Your task to perform on an android device: toggle translation in the chrome app Image 0: 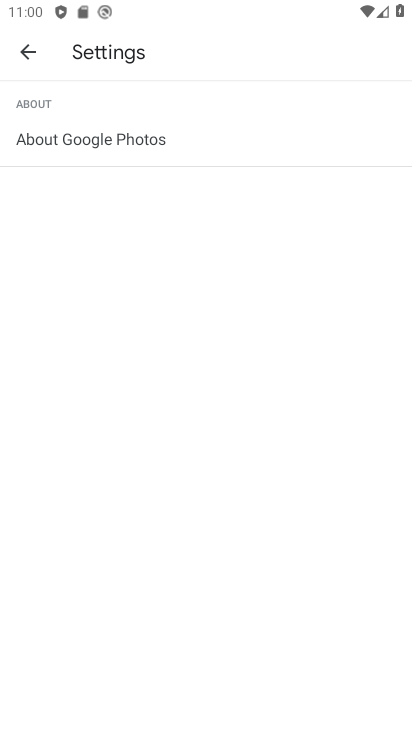
Step 0: press home button
Your task to perform on an android device: toggle translation in the chrome app Image 1: 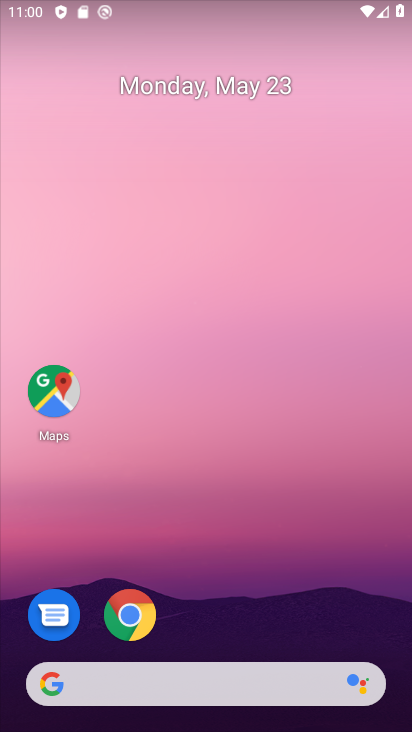
Step 1: click (128, 617)
Your task to perform on an android device: toggle translation in the chrome app Image 2: 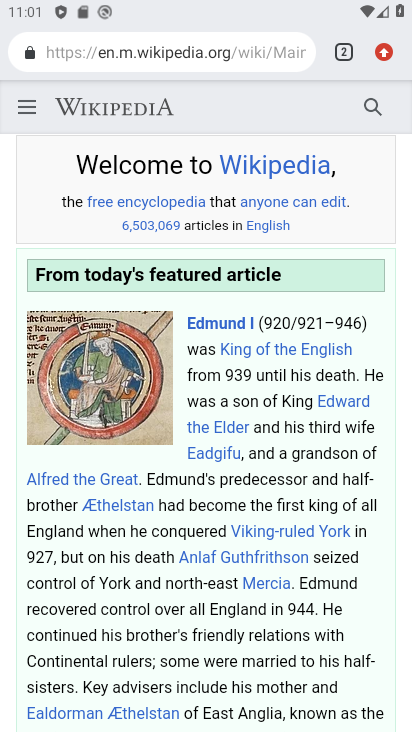
Step 2: click (385, 45)
Your task to perform on an android device: toggle translation in the chrome app Image 3: 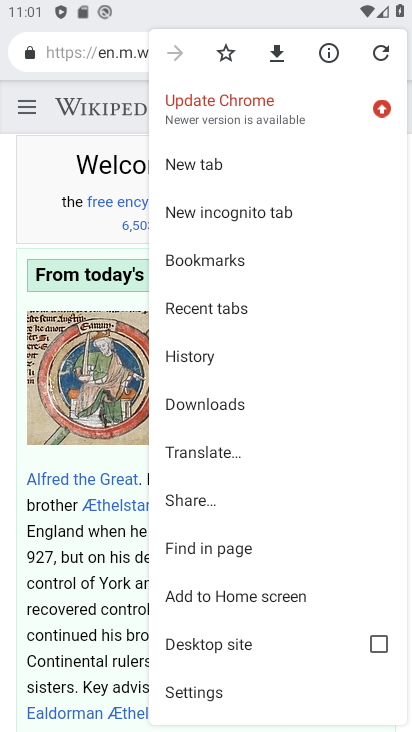
Step 3: click (192, 698)
Your task to perform on an android device: toggle translation in the chrome app Image 4: 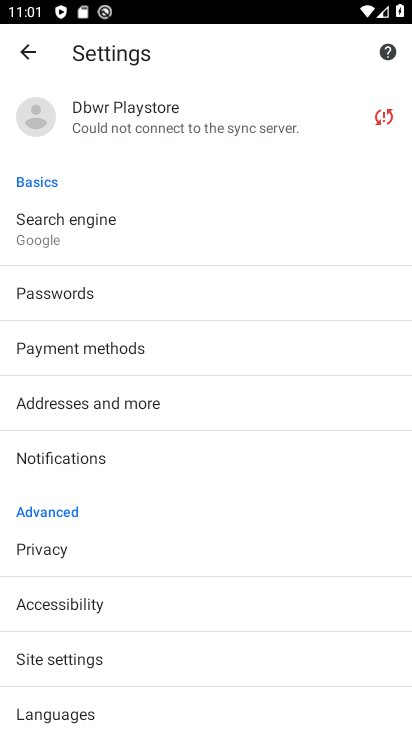
Step 4: click (19, 723)
Your task to perform on an android device: toggle translation in the chrome app Image 5: 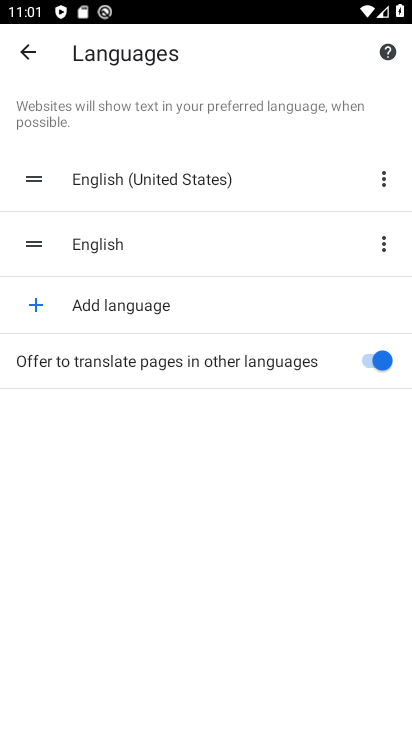
Step 5: click (363, 366)
Your task to perform on an android device: toggle translation in the chrome app Image 6: 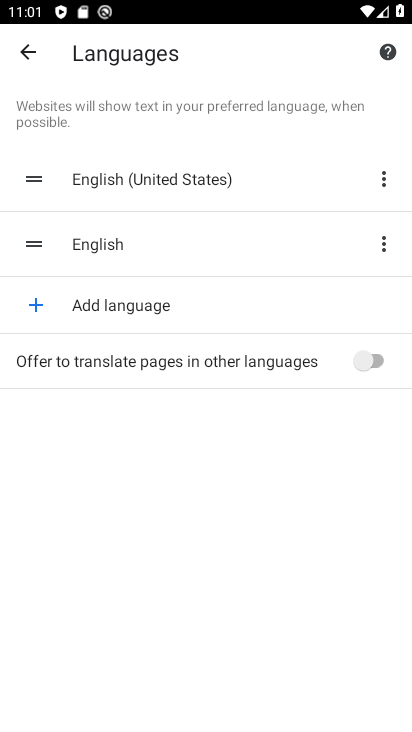
Step 6: click (363, 366)
Your task to perform on an android device: toggle translation in the chrome app Image 7: 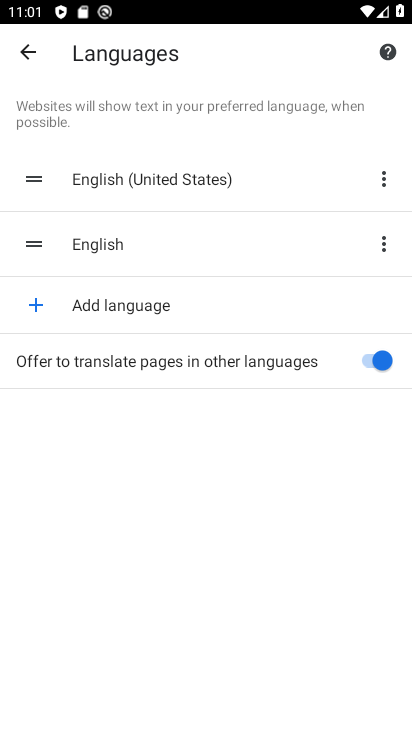
Step 7: task complete